Your task to perform on an android device: turn smart compose on in the gmail app Image 0: 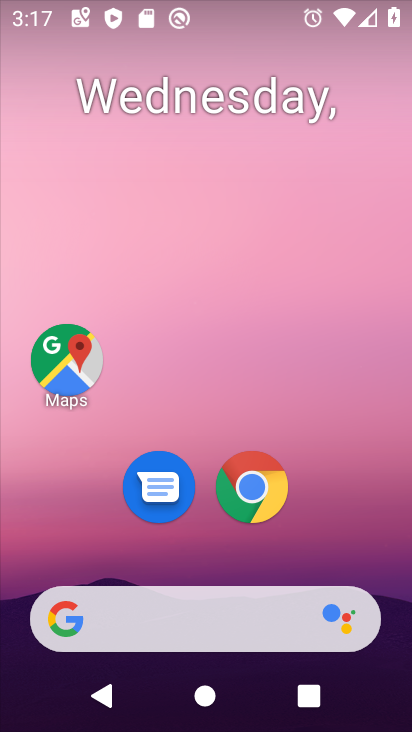
Step 0: drag from (385, 542) to (380, 270)
Your task to perform on an android device: turn smart compose on in the gmail app Image 1: 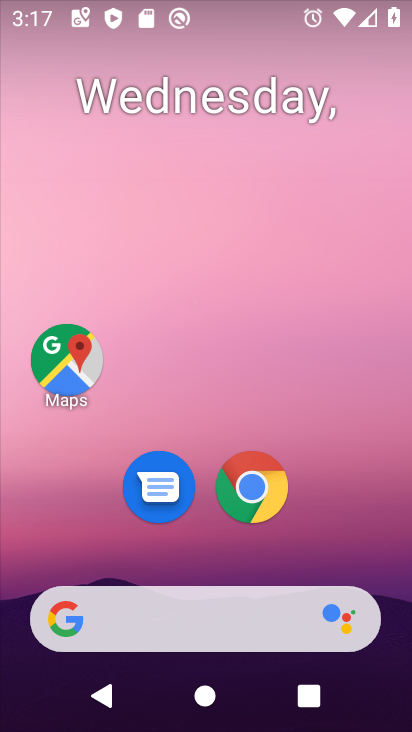
Step 1: drag from (381, 539) to (378, 163)
Your task to perform on an android device: turn smart compose on in the gmail app Image 2: 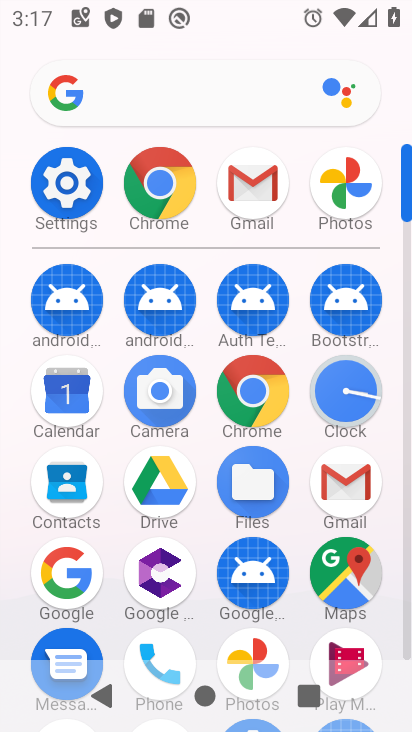
Step 2: click (347, 490)
Your task to perform on an android device: turn smart compose on in the gmail app Image 3: 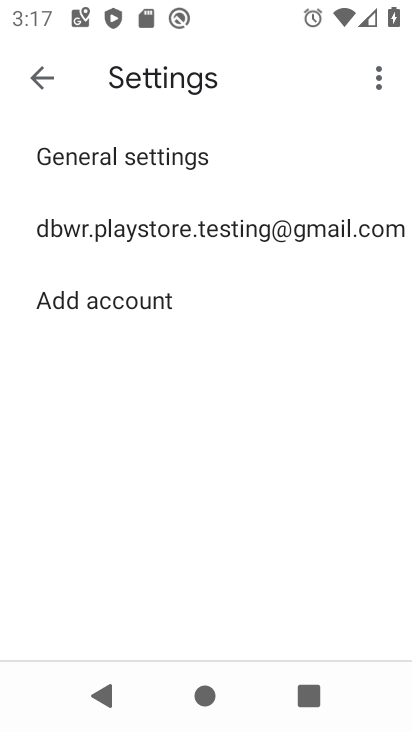
Step 3: click (95, 229)
Your task to perform on an android device: turn smart compose on in the gmail app Image 4: 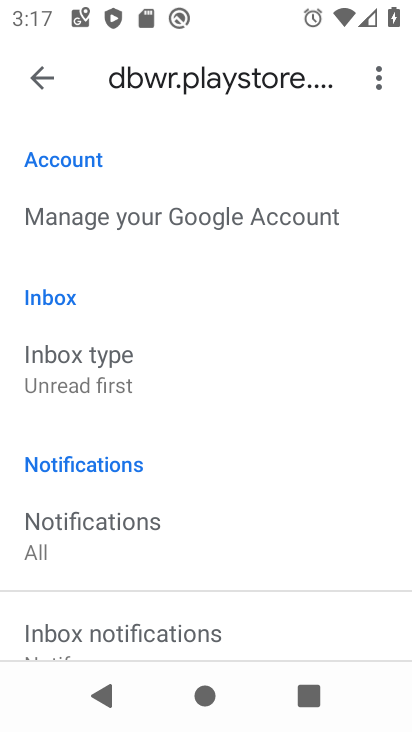
Step 4: task complete